Your task to perform on an android device: Go to Yahoo.com Image 0: 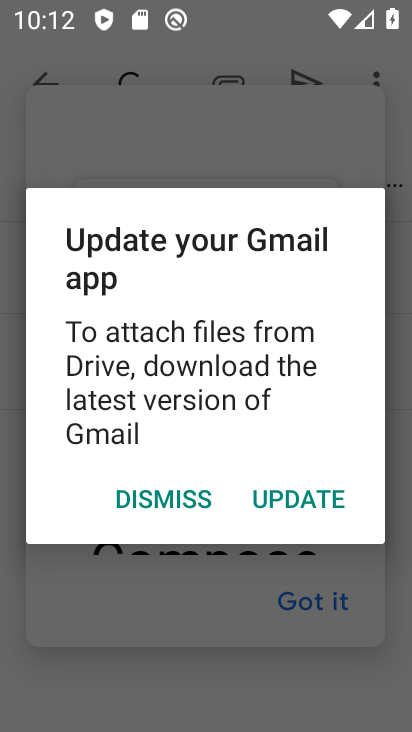
Step 0: press home button
Your task to perform on an android device: Go to Yahoo.com Image 1: 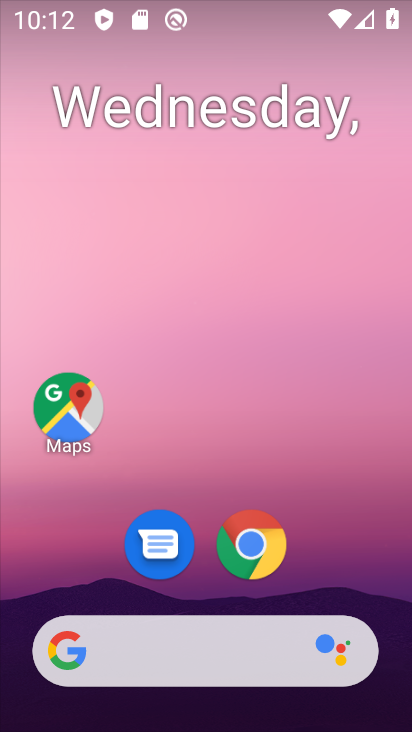
Step 1: drag from (222, 681) to (315, 143)
Your task to perform on an android device: Go to Yahoo.com Image 2: 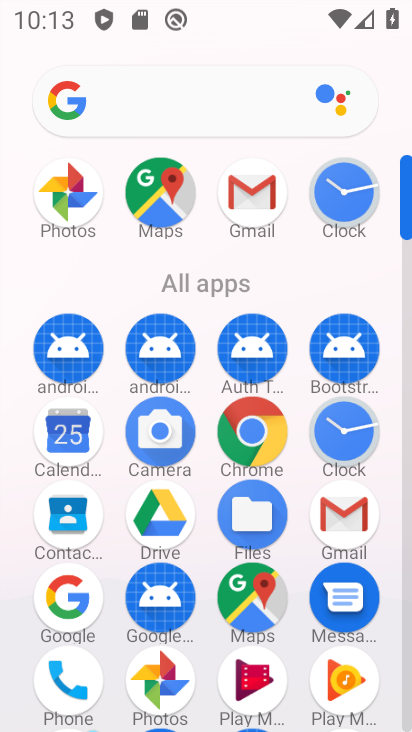
Step 2: click (253, 442)
Your task to perform on an android device: Go to Yahoo.com Image 3: 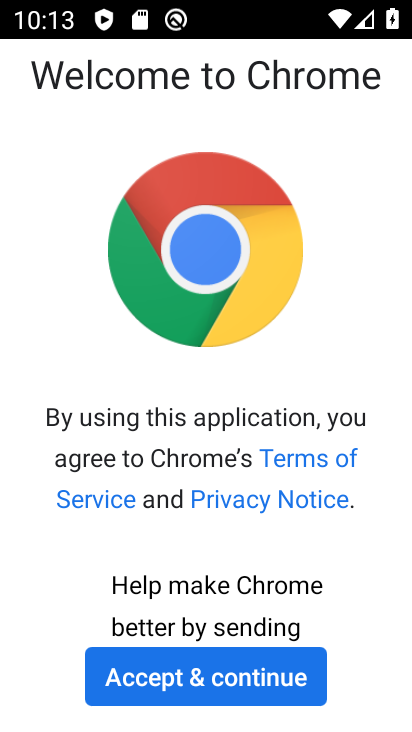
Step 3: click (182, 670)
Your task to perform on an android device: Go to Yahoo.com Image 4: 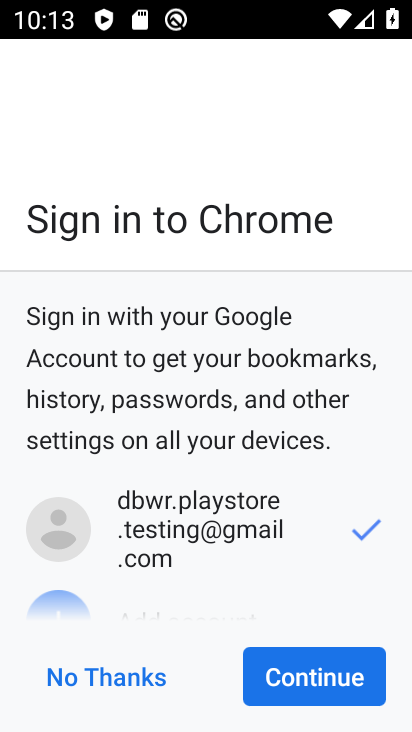
Step 4: click (343, 687)
Your task to perform on an android device: Go to Yahoo.com Image 5: 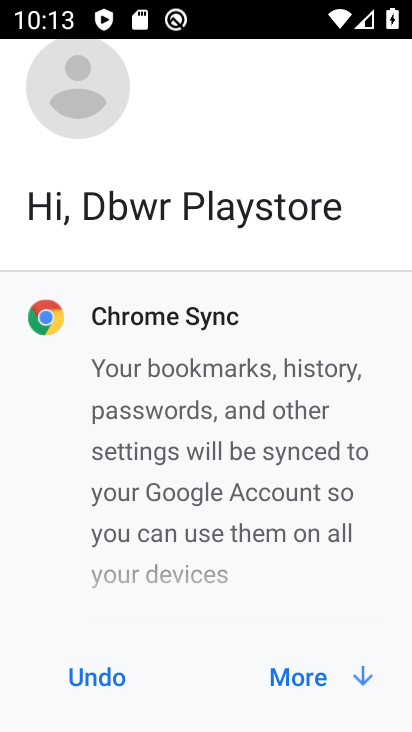
Step 5: click (313, 675)
Your task to perform on an android device: Go to Yahoo.com Image 6: 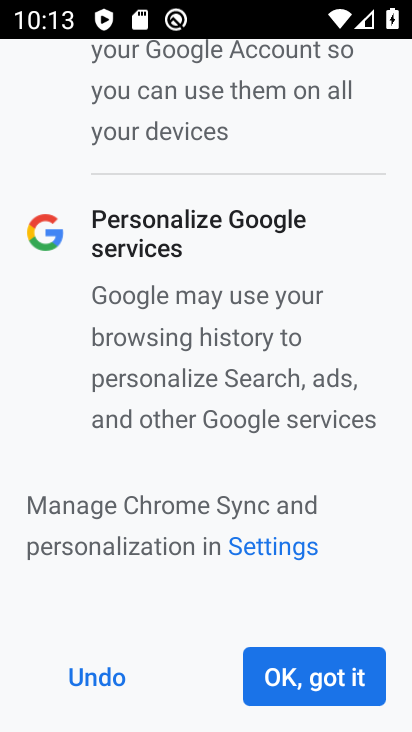
Step 6: click (328, 666)
Your task to perform on an android device: Go to Yahoo.com Image 7: 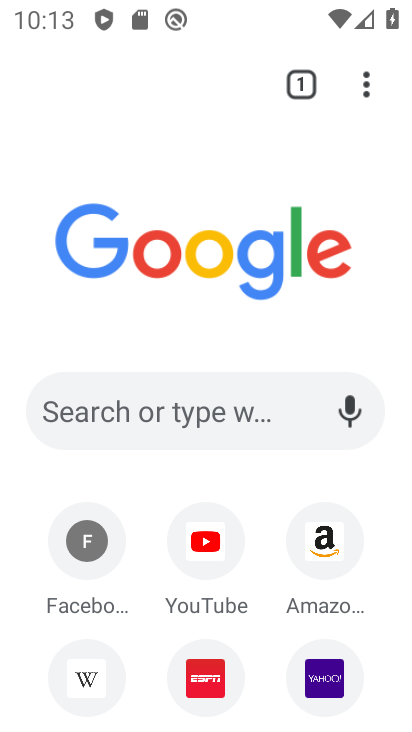
Step 7: click (218, 561)
Your task to perform on an android device: Go to Yahoo.com Image 8: 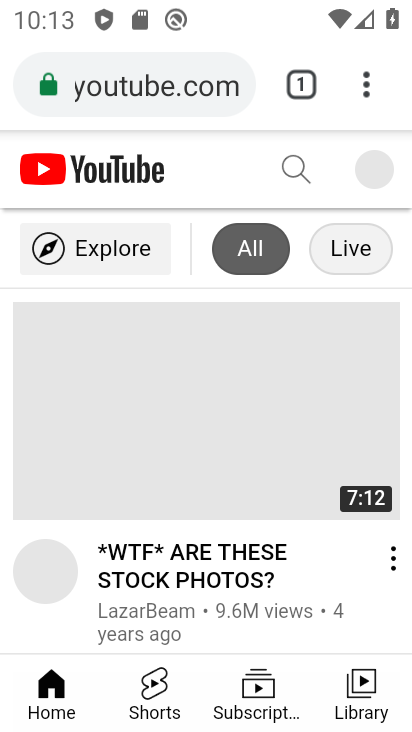
Step 8: task complete